Your task to perform on an android device: search for starred emails in the gmail app Image 0: 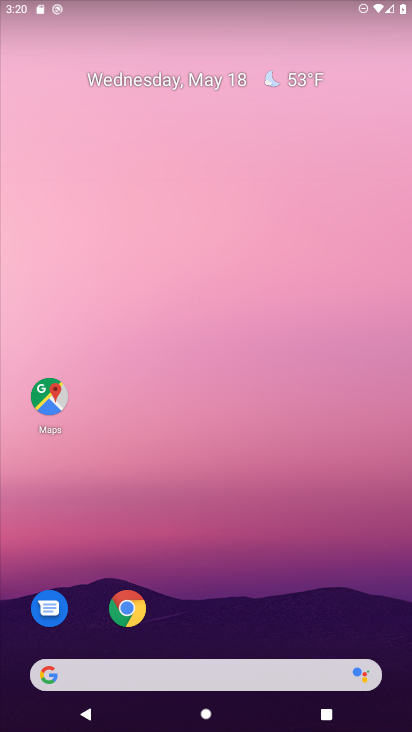
Step 0: drag from (134, 645) to (184, 230)
Your task to perform on an android device: search for starred emails in the gmail app Image 1: 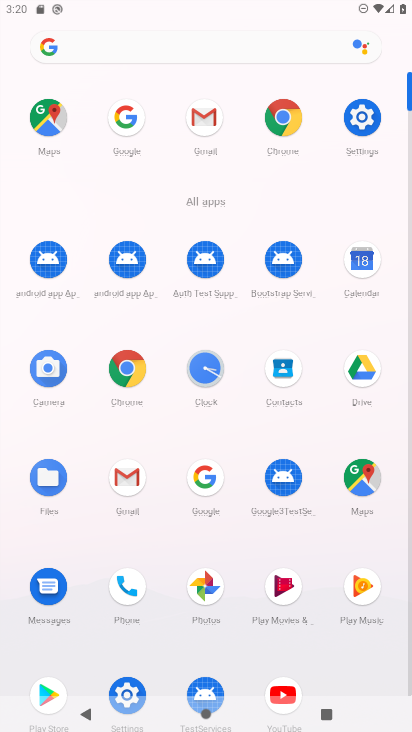
Step 1: click (194, 121)
Your task to perform on an android device: search for starred emails in the gmail app Image 2: 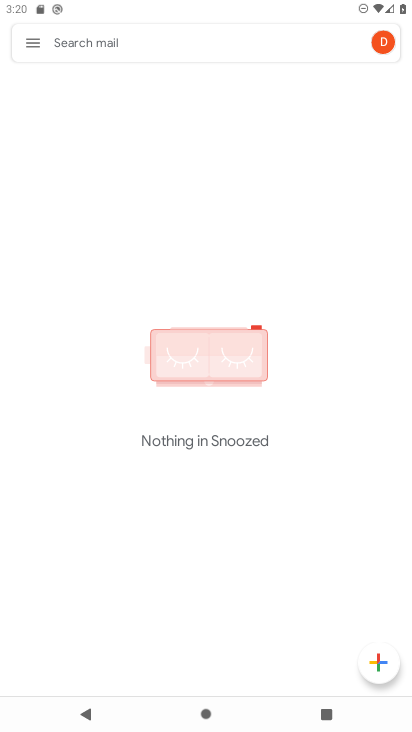
Step 2: click (26, 37)
Your task to perform on an android device: search for starred emails in the gmail app Image 3: 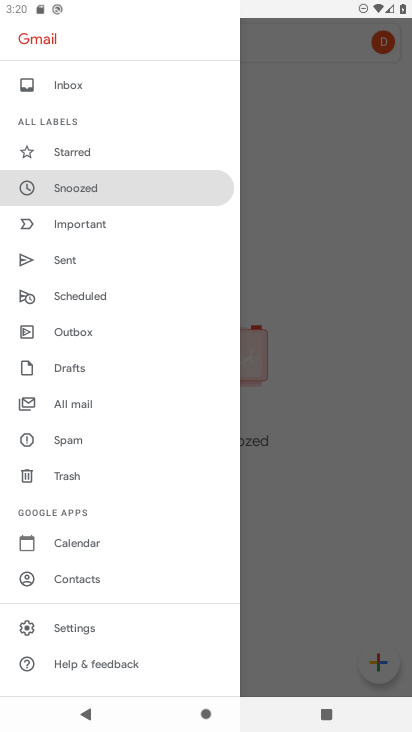
Step 3: click (70, 152)
Your task to perform on an android device: search for starred emails in the gmail app Image 4: 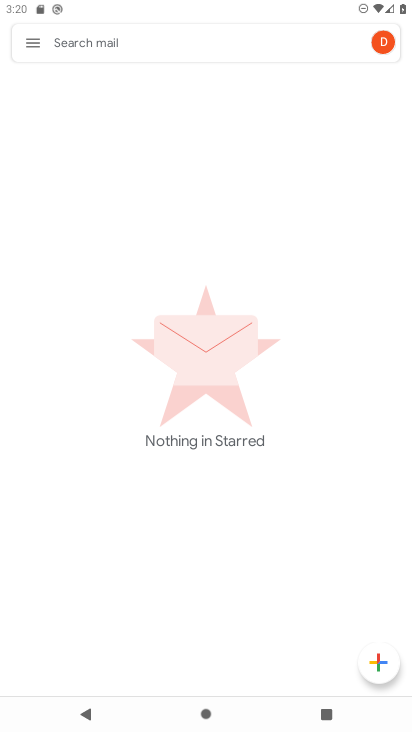
Step 4: task complete